Your task to perform on an android device: Add lg ultragear to the cart on amazon, then select checkout. Image 0: 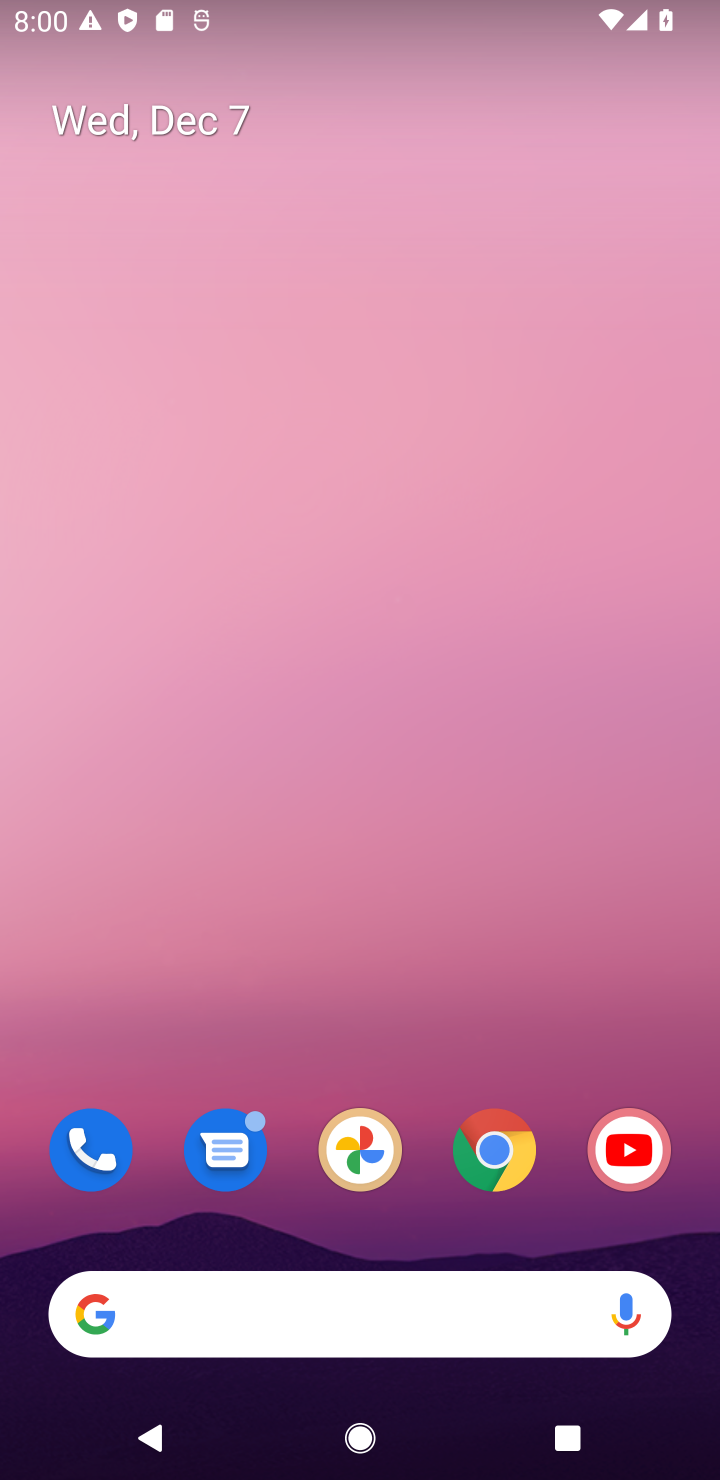
Step 0: click (506, 1155)
Your task to perform on an android device: Add lg ultragear to the cart on amazon, then select checkout. Image 1: 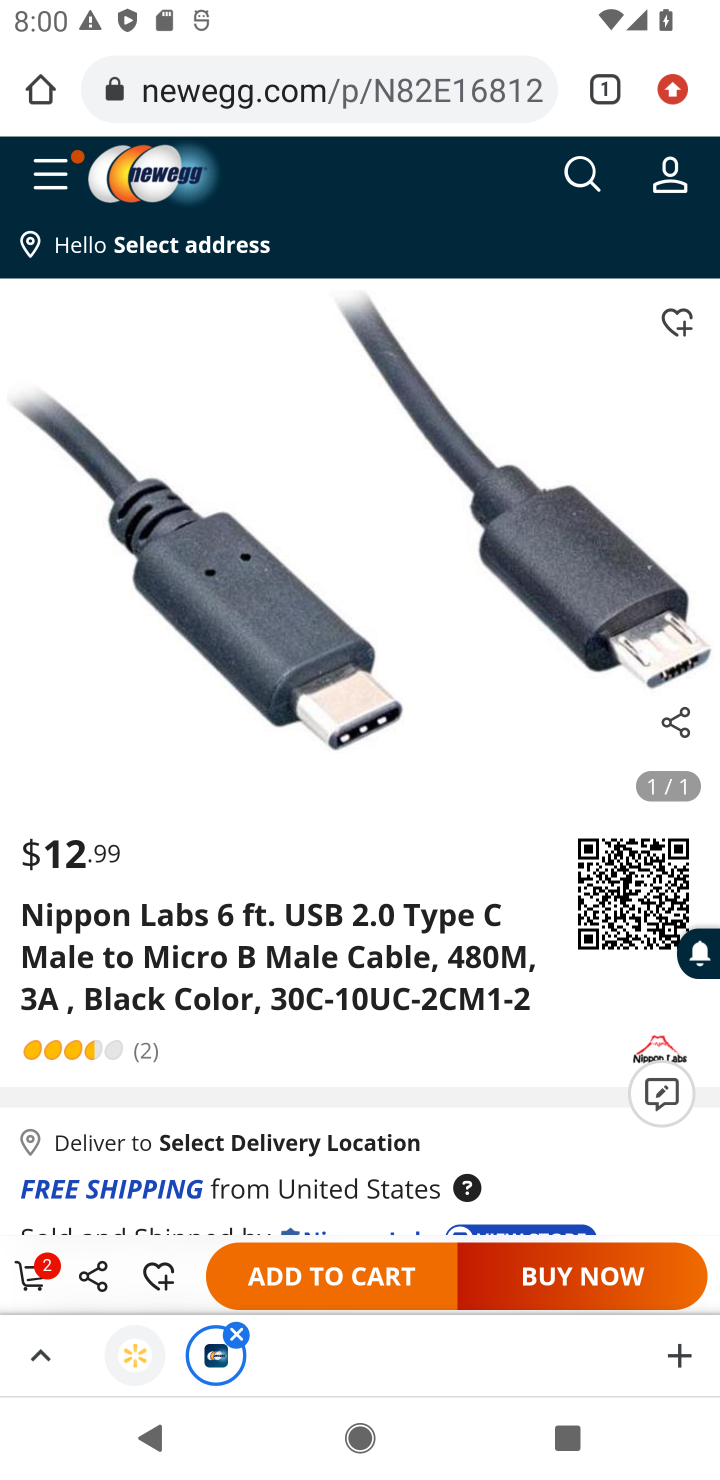
Step 1: click (303, 91)
Your task to perform on an android device: Add lg ultragear to the cart on amazon, then select checkout. Image 2: 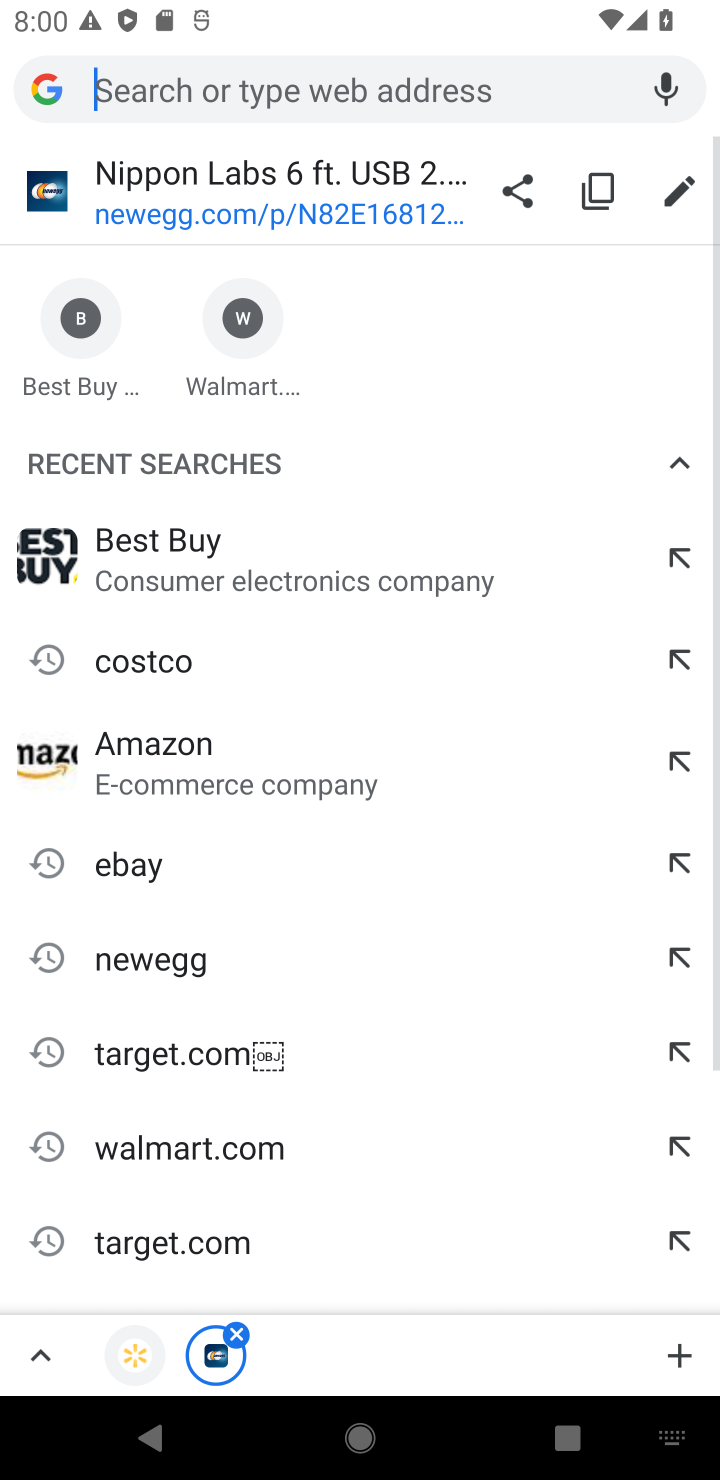
Step 2: click (132, 768)
Your task to perform on an android device: Add lg ultragear to the cart on amazon, then select checkout. Image 3: 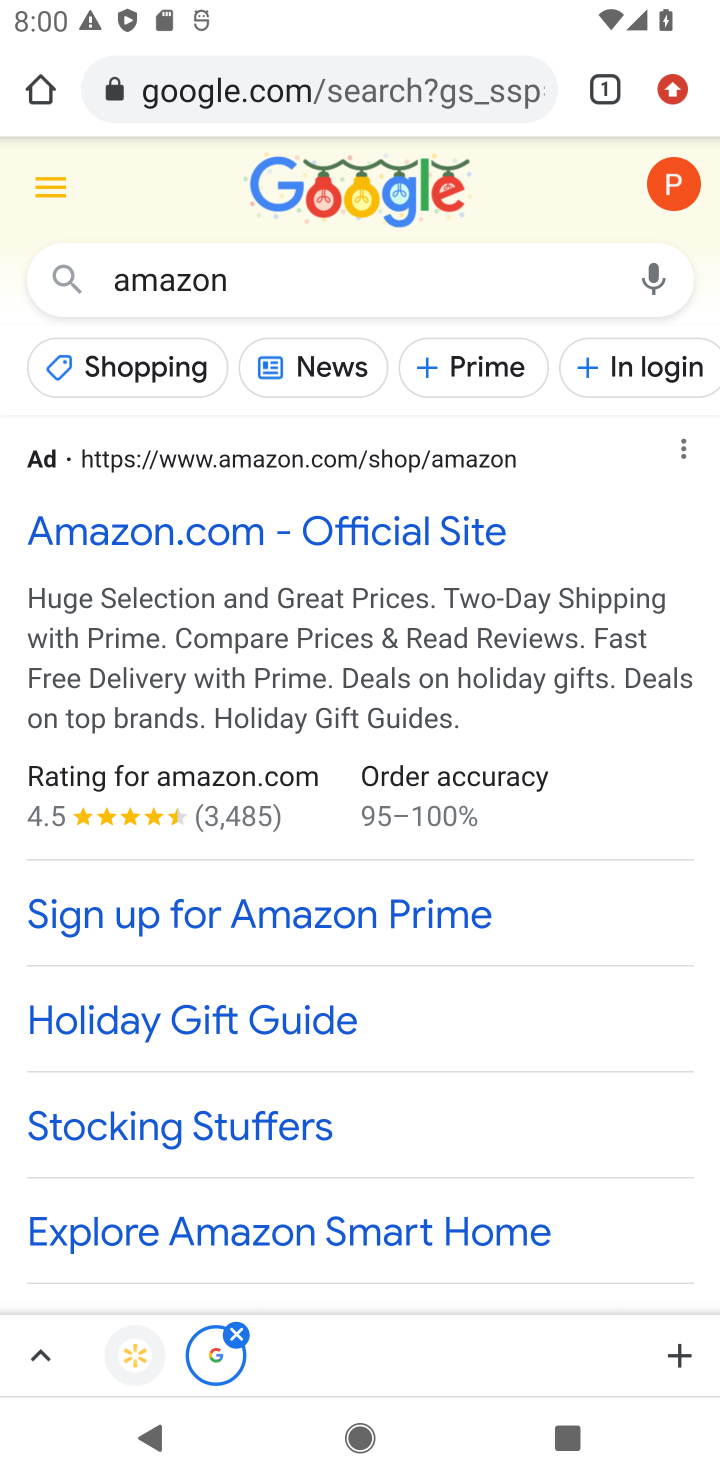
Step 3: click (242, 540)
Your task to perform on an android device: Add lg ultragear to the cart on amazon, then select checkout. Image 4: 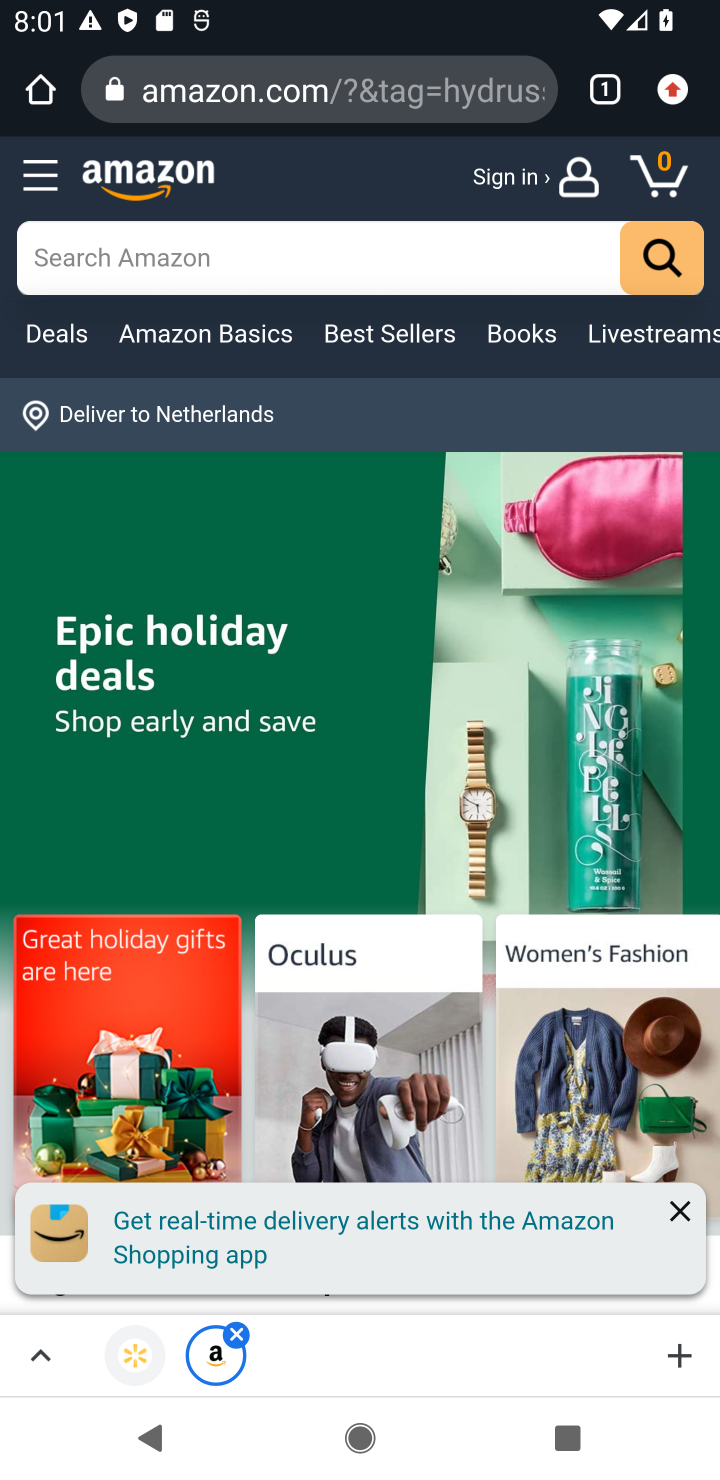
Step 4: click (363, 257)
Your task to perform on an android device: Add lg ultragear to the cart on amazon, then select checkout. Image 5: 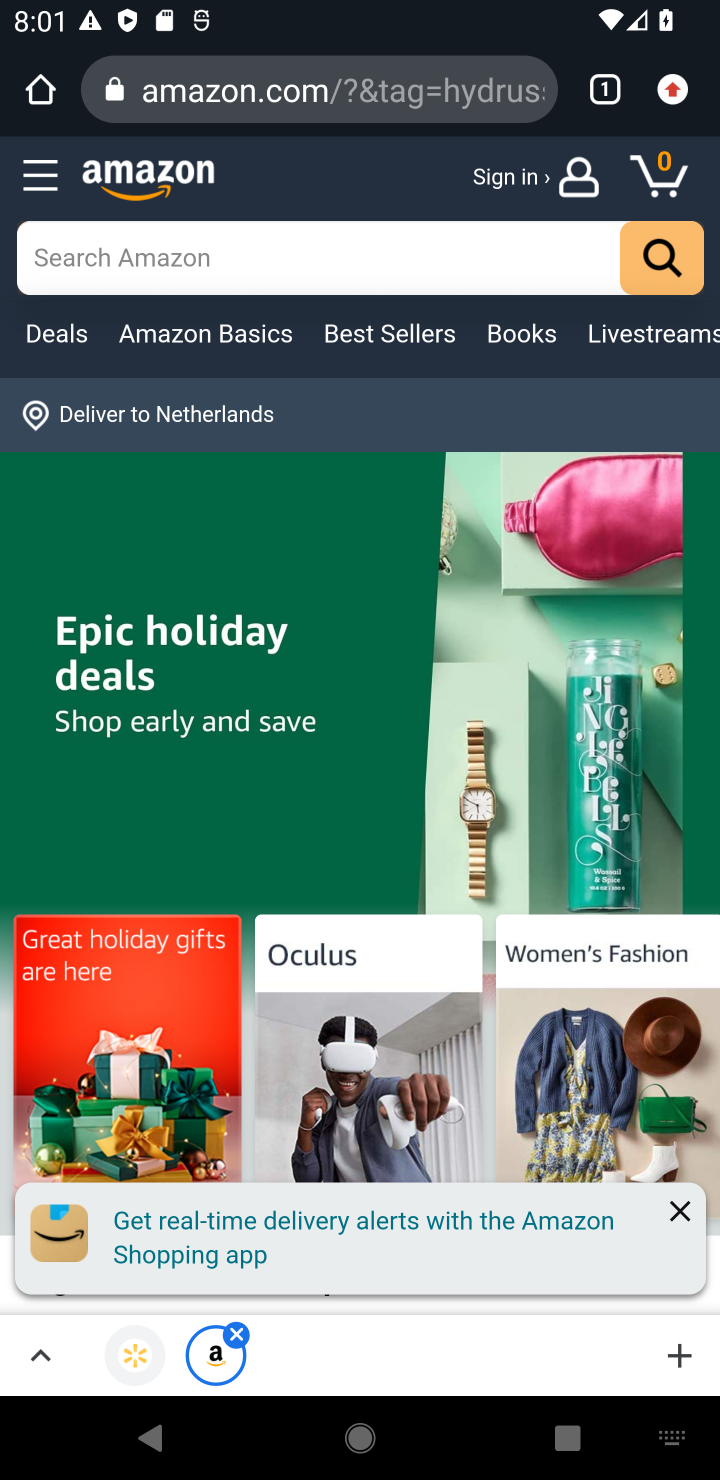
Step 5: type "lg ultragear"
Your task to perform on an android device: Add lg ultragear to the cart on amazon, then select checkout. Image 6: 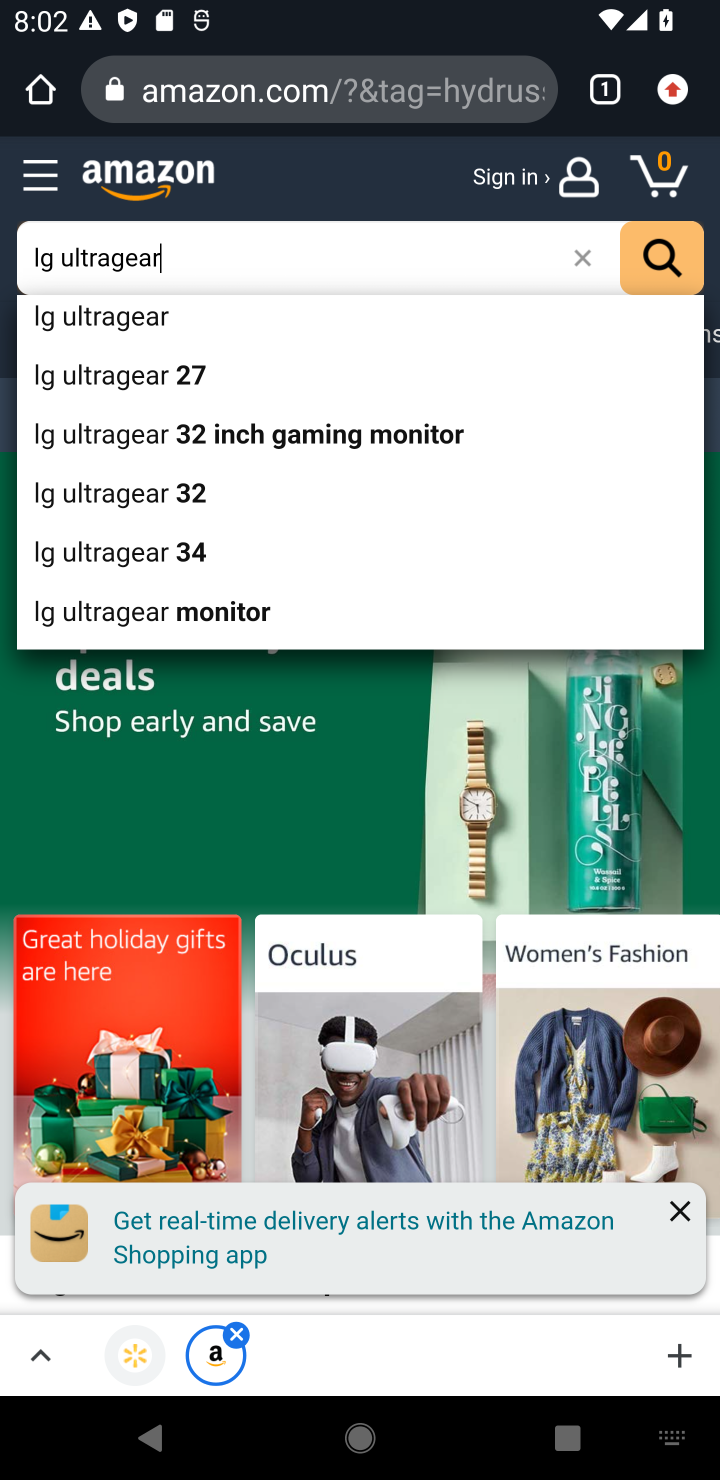
Step 6: click (167, 314)
Your task to perform on an android device: Add lg ultragear to the cart on amazon, then select checkout. Image 7: 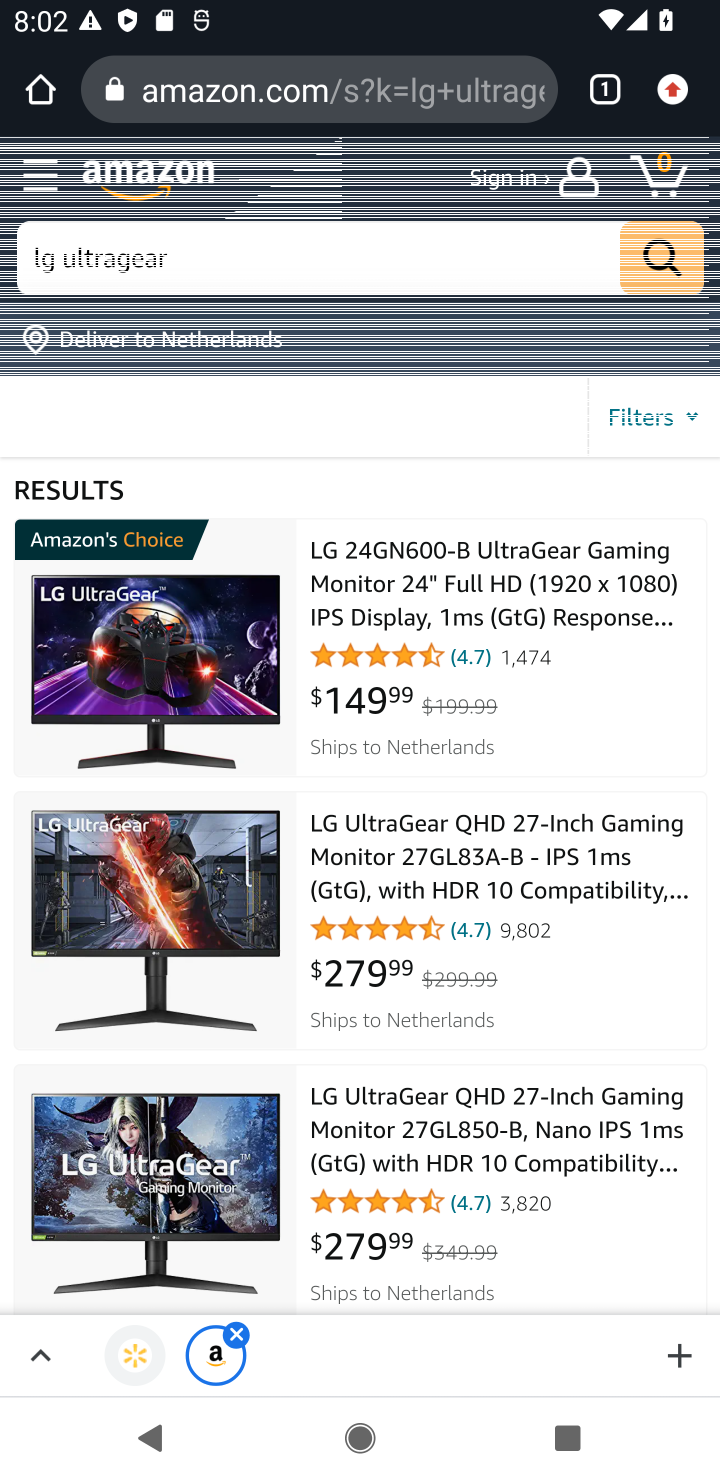
Step 7: click (202, 630)
Your task to perform on an android device: Add lg ultragear to the cart on amazon, then select checkout. Image 8: 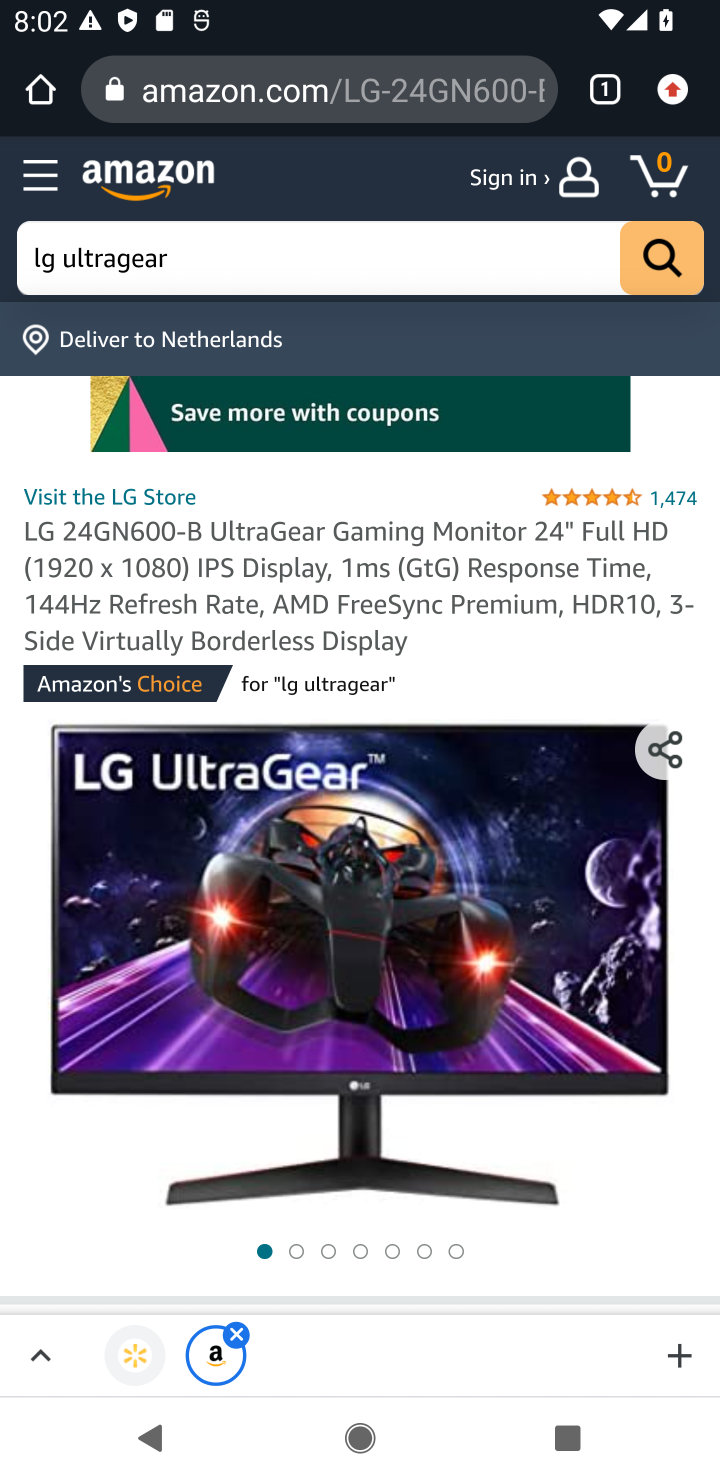
Step 8: drag from (448, 1183) to (428, 466)
Your task to perform on an android device: Add lg ultragear to the cart on amazon, then select checkout. Image 9: 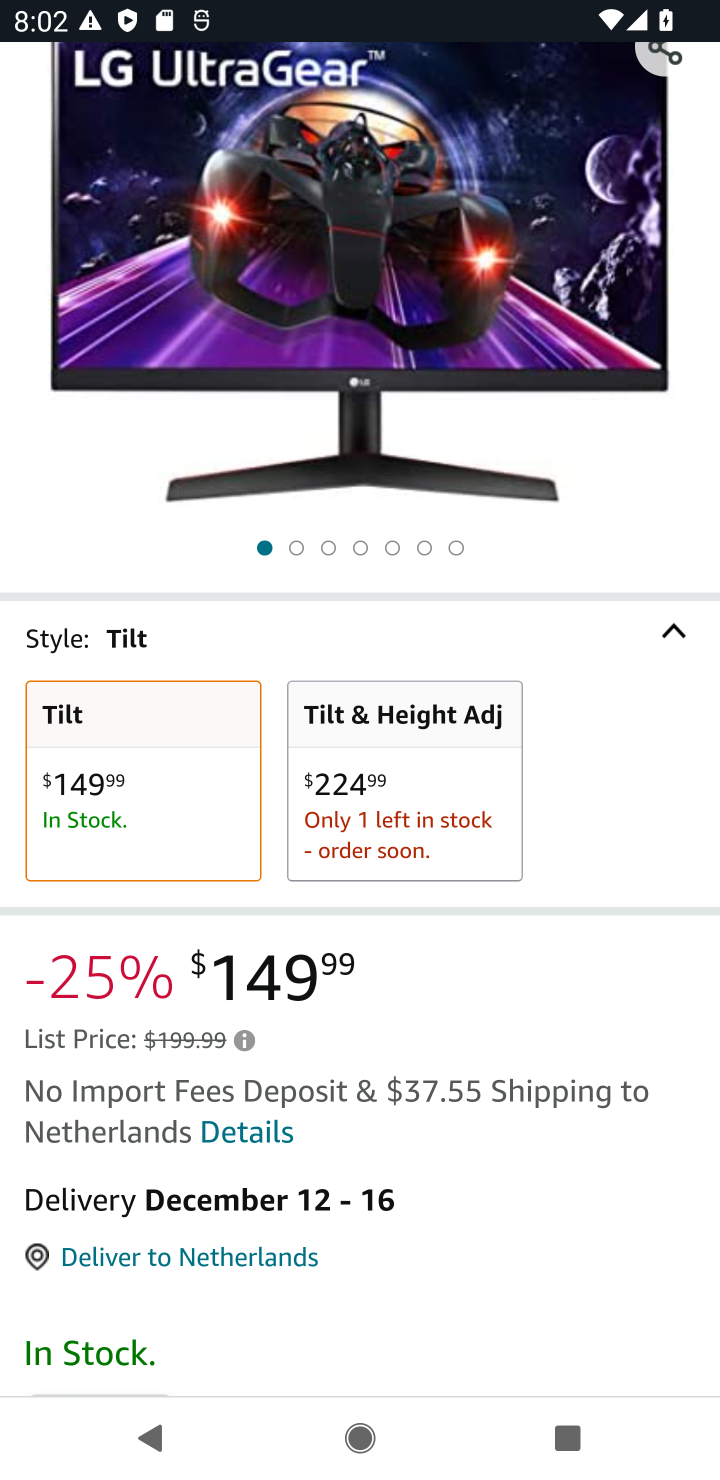
Step 9: drag from (434, 1251) to (454, 425)
Your task to perform on an android device: Add lg ultragear to the cart on amazon, then select checkout. Image 10: 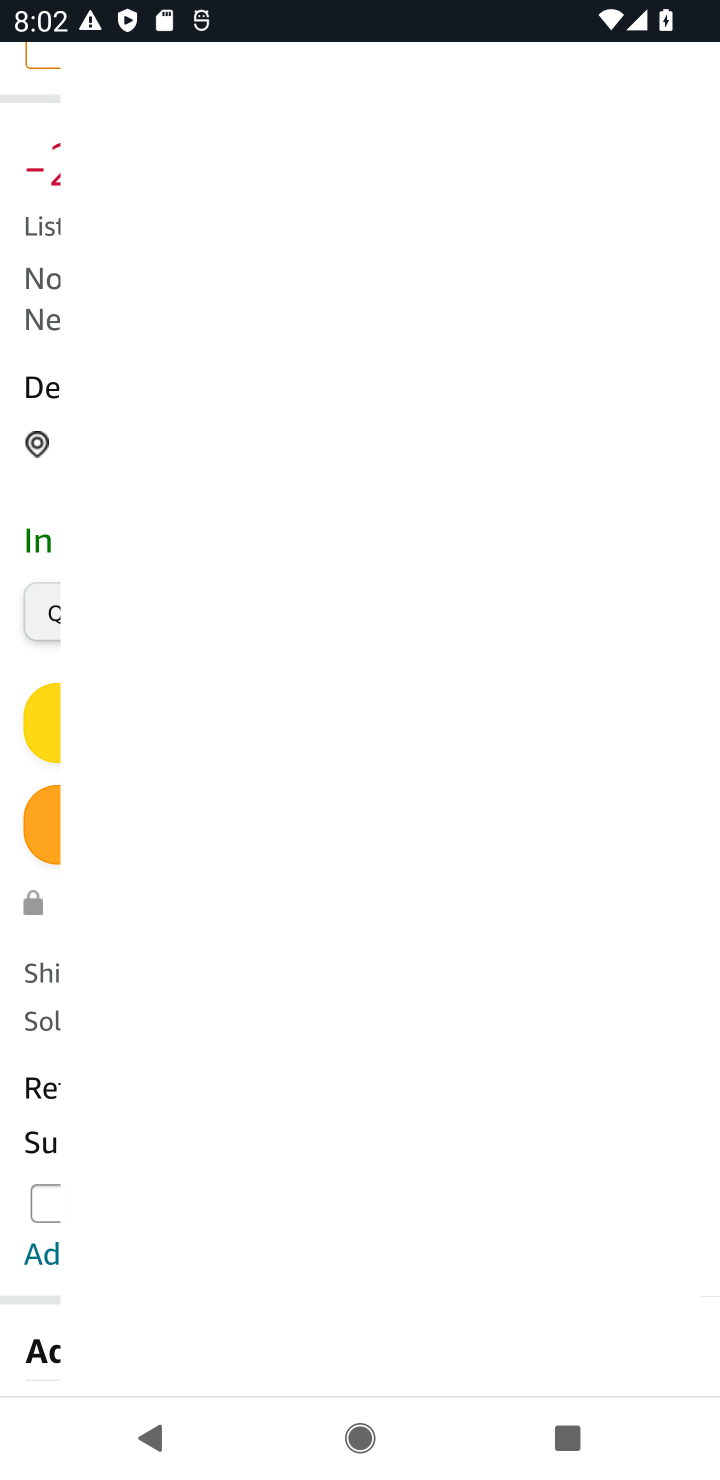
Step 10: click (381, 757)
Your task to perform on an android device: Add lg ultragear to the cart on amazon, then select checkout. Image 11: 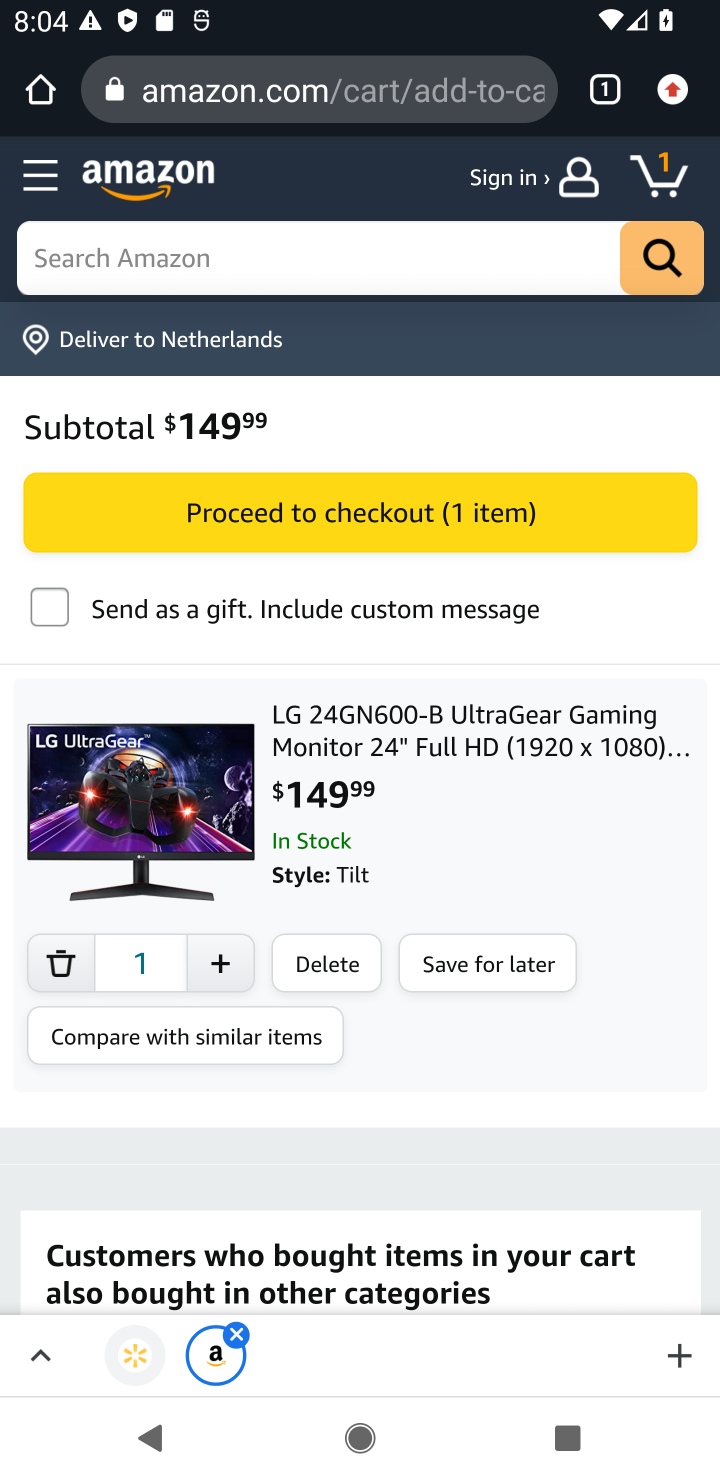
Step 11: click (364, 519)
Your task to perform on an android device: Add lg ultragear to the cart on amazon, then select checkout. Image 12: 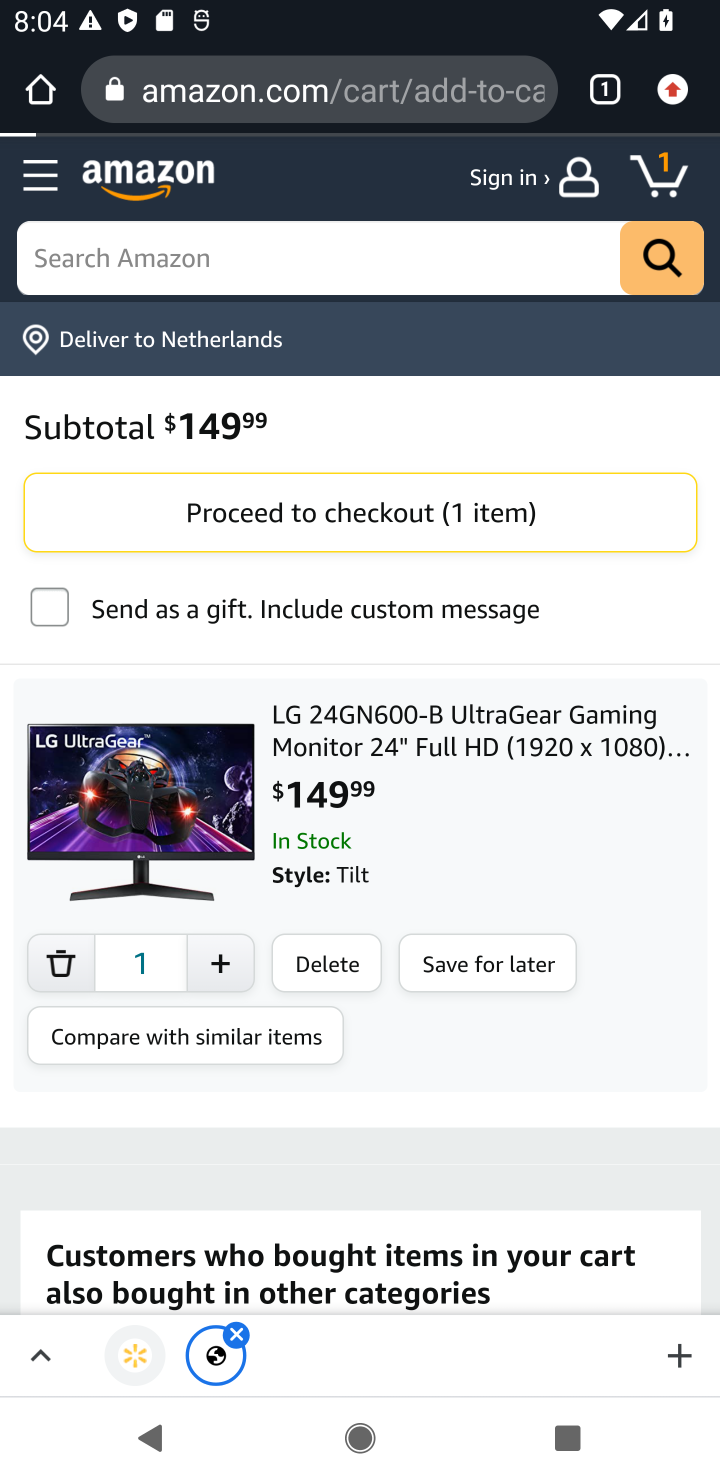
Step 12: task complete